Your task to perform on an android device: toggle pop-ups in chrome Image 0: 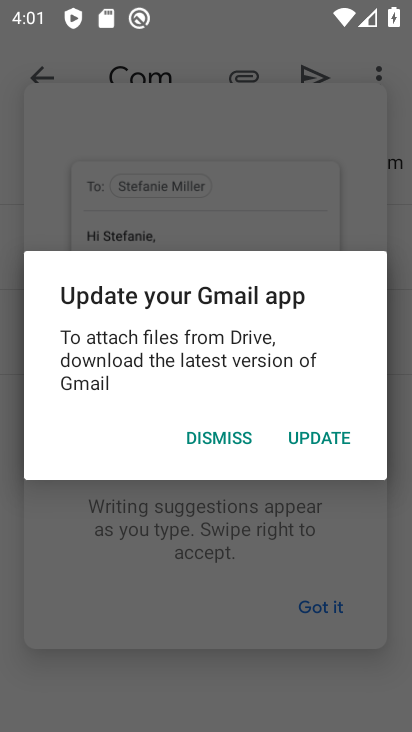
Step 0: press home button
Your task to perform on an android device: toggle pop-ups in chrome Image 1: 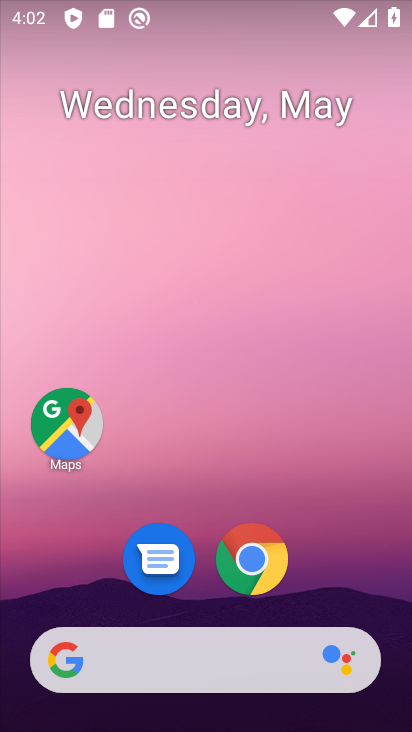
Step 1: click (260, 562)
Your task to perform on an android device: toggle pop-ups in chrome Image 2: 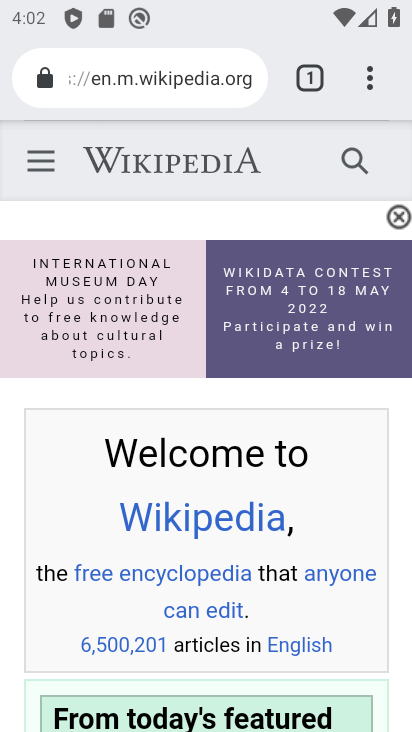
Step 2: click (359, 70)
Your task to perform on an android device: toggle pop-ups in chrome Image 3: 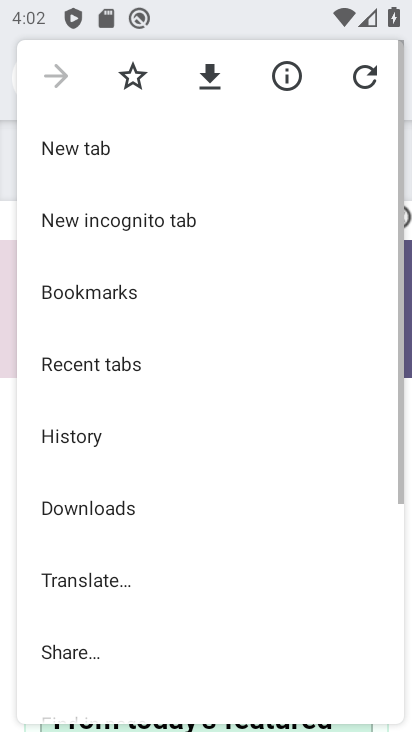
Step 3: drag from (229, 592) to (230, 189)
Your task to perform on an android device: toggle pop-ups in chrome Image 4: 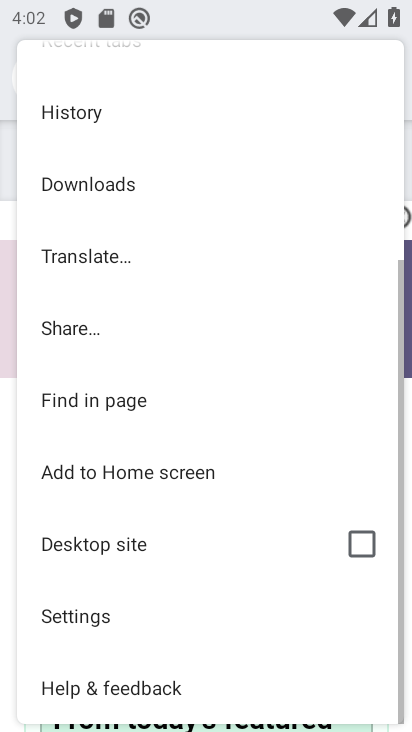
Step 4: click (142, 628)
Your task to perform on an android device: toggle pop-ups in chrome Image 5: 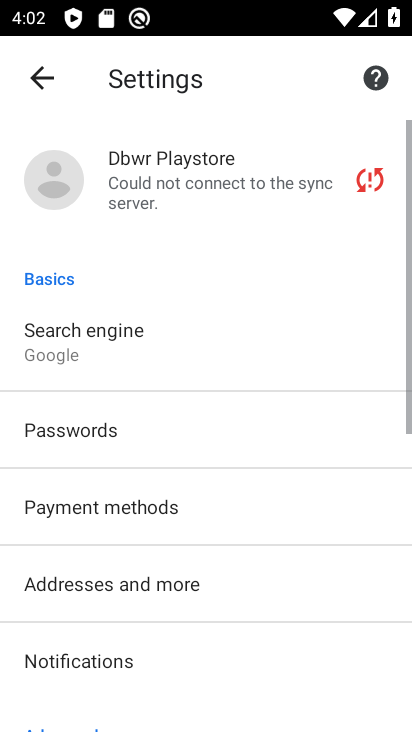
Step 5: drag from (186, 631) to (208, 197)
Your task to perform on an android device: toggle pop-ups in chrome Image 6: 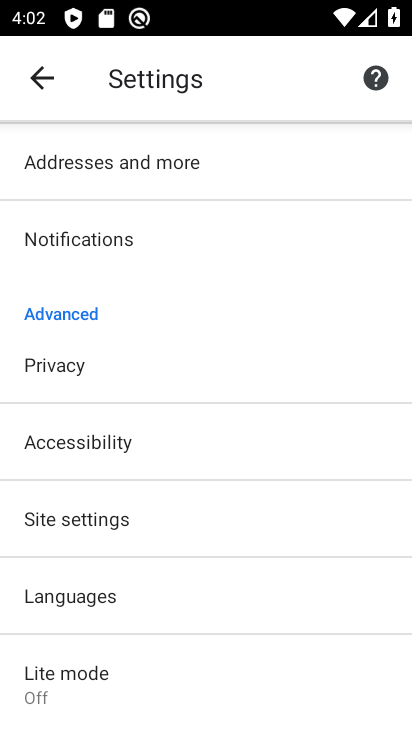
Step 6: drag from (257, 620) to (240, 471)
Your task to perform on an android device: toggle pop-ups in chrome Image 7: 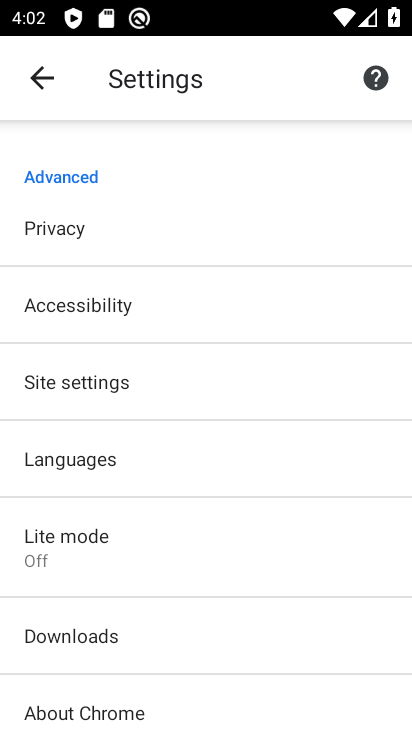
Step 7: click (216, 405)
Your task to perform on an android device: toggle pop-ups in chrome Image 8: 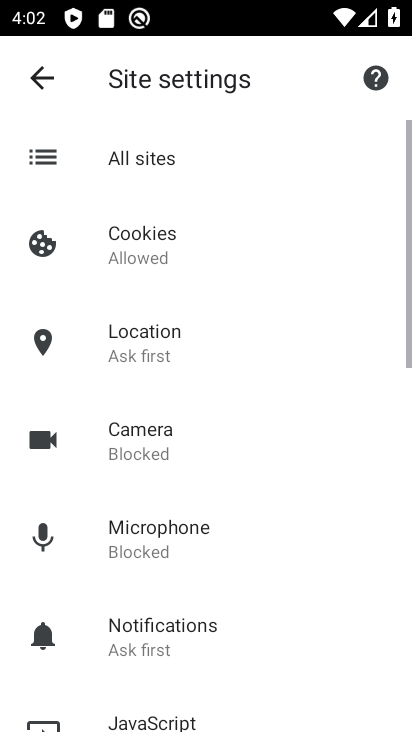
Step 8: drag from (252, 603) to (226, 236)
Your task to perform on an android device: toggle pop-ups in chrome Image 9: 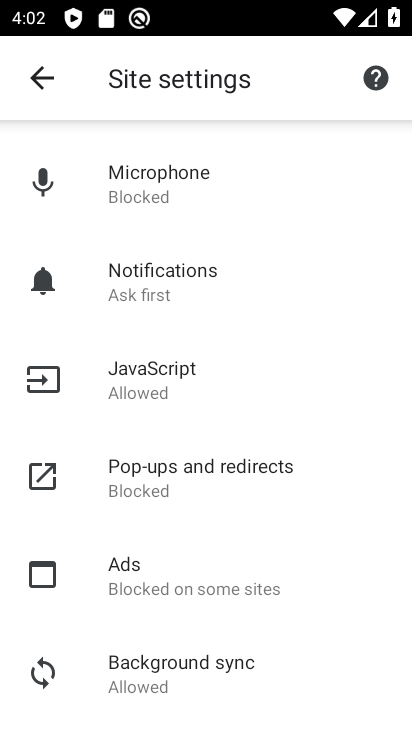
Step 9: click (211, 482)
Your task to perform on an android device: toggle pop-ups in chrome Image 10: 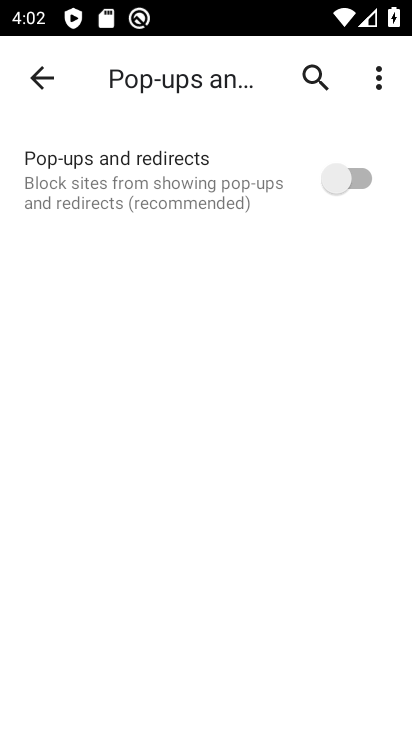
Step 10: click (349, 176)
Your task to perform on an android device: toggle pop-ups in chrome Image 11: 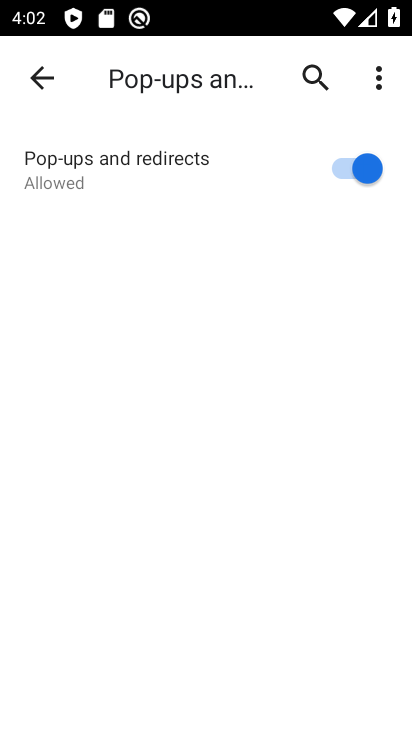
Step 11: task complete